Your task to perform on an android device: Clear the cart on walmart.com. Add "razer blade" to the cart on walmart.com, then select checkout. Image 0: 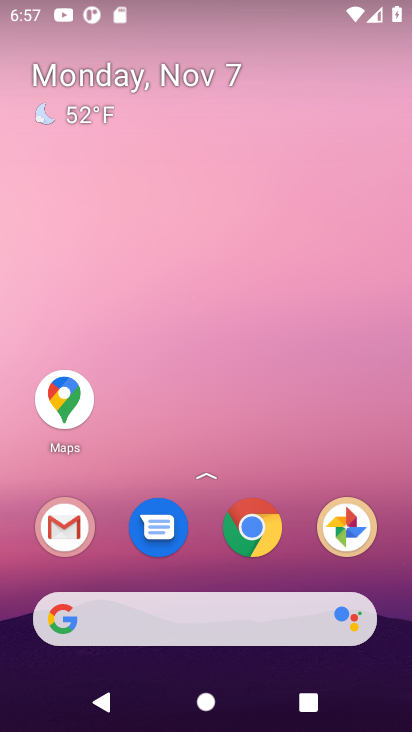
Step 0: click (251, 511)
Your task to perform on an android device: Clear the cart on walmart.com. Add "razer blade" to the cart on walmart.com, then select checkout. Image 1: 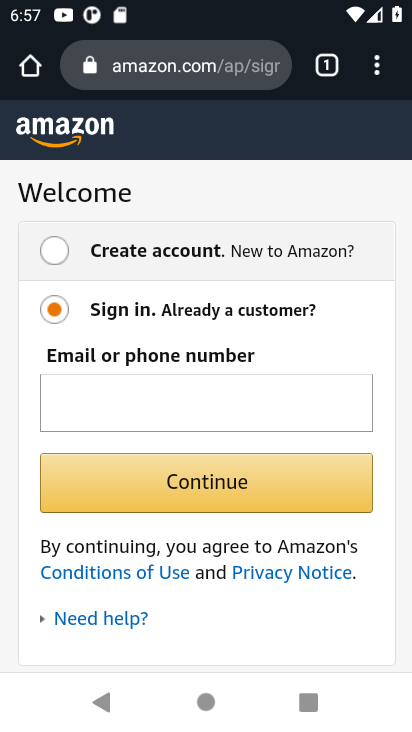
Step 1: click (248, 42)
Your task to perform on an android device: Clear the cart on walmart.com. Add "razer blade" to the cart on walmart.com, then select checkout. Image 2: 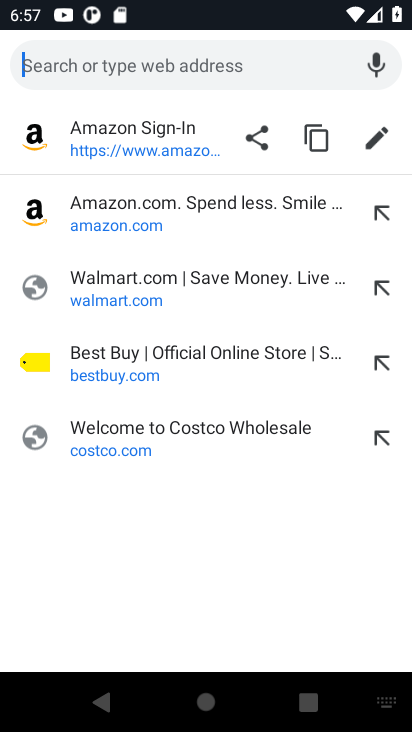
Step 2: type "walmart.com"
Your task to perform on an android device: Clear the cart on walmart.com. Add "razer blade" to the cart on walmart.com, then select checkout. Image 3: 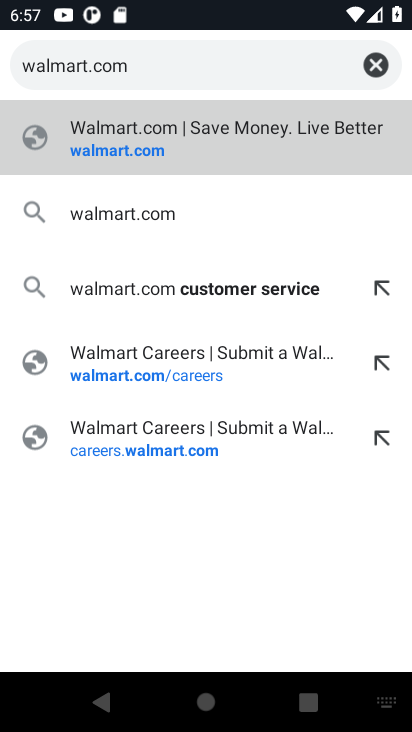
Step 3: click (138, 164)
Your task to perform on an android device: Clear the cart on walmart.com. Add "razer blade" to the cart on walmart.com, then select checkout. Image 4: 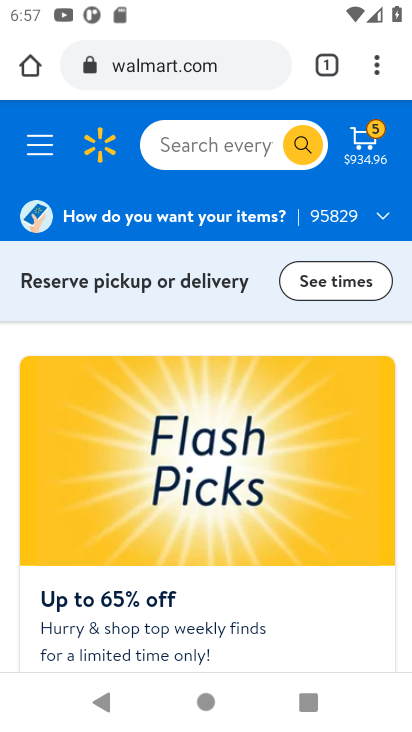
Step 4: click (218, 151)
Your task to perform on an android device: Clear the cart on walmart.com. Add "razer blade" to the cart on walmart.com, then select checkout. Image 5: 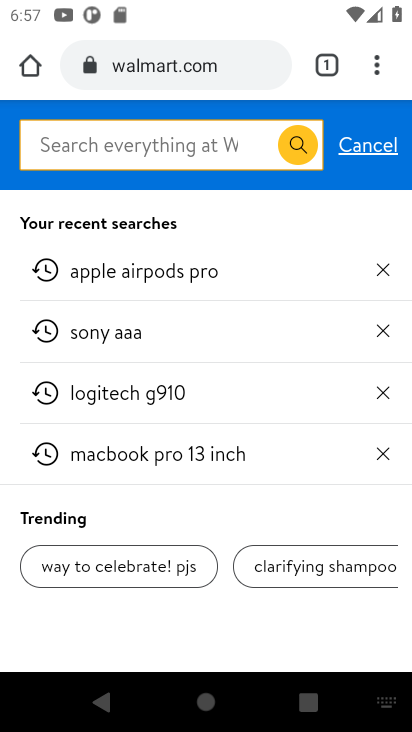
Step 5: type "razer blade"
Your task to perform on an android device: Clear the cart on walmart.com. Add "razer blade" to the cart on walmart.com, then select checkout. Image 6: 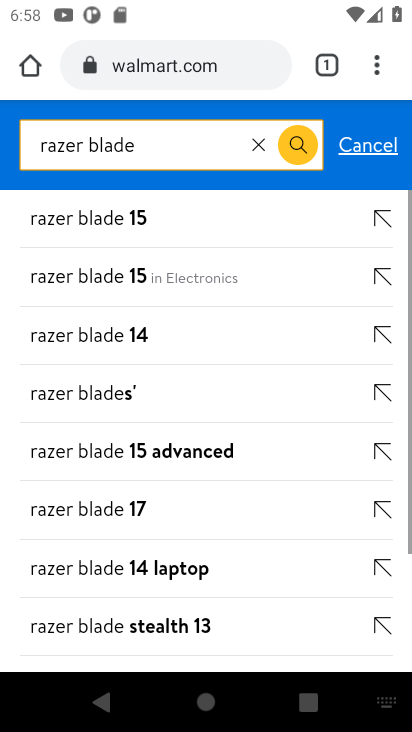
Step 6: press enter
Your task to perform on an android device: Clear the cart on walmart.com. Add "razer blade" to the cart on walmart.com, then select checkout. Image 7: 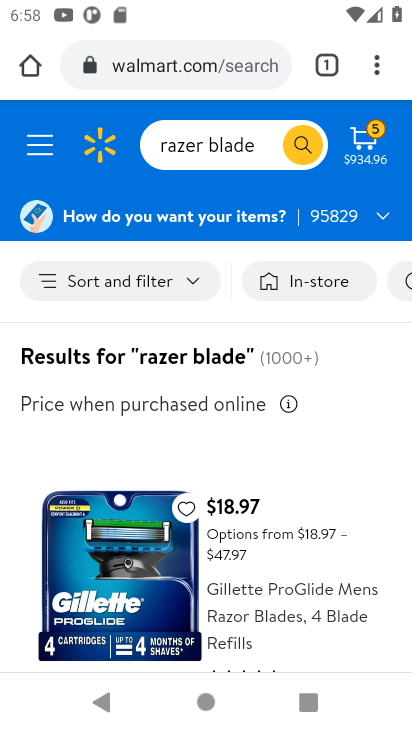
Step 7: drag from (224, 614) to (184, 326)
Your task to perform on an android device: Clear the cart on walmart.com. Add "razer blade" to the cart on walmart.com, then select checkout. Image 8: 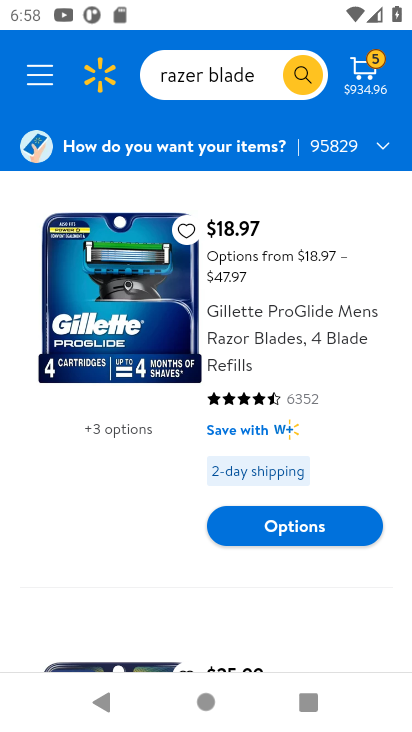
Step 8: click (271, 533)
Your task to perform on an android device: Clear the cart on walmart.com. Add "razer blade" to the cart on walmart.com, then select checkout. Image 9: 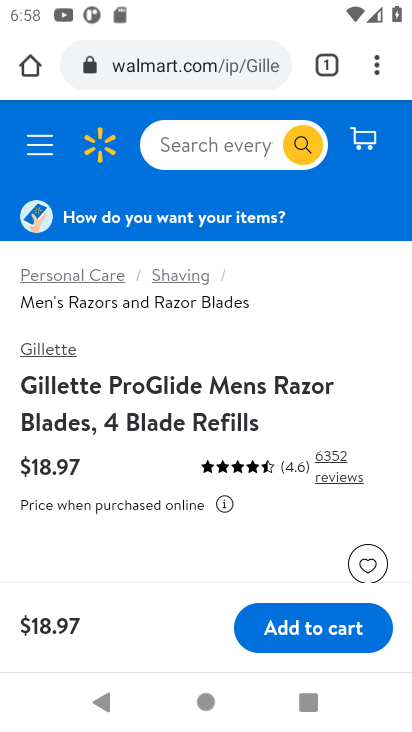
Step 9: click (295, 627)
Your task to perform on an android device: Clear the cart on walmart.com. Add "razer blade" to the cart on walmart.com, then select checkout. Image 10: 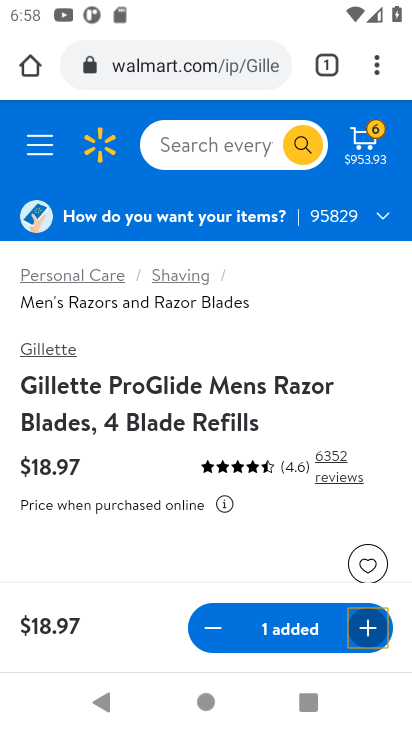
Step 10: click (375, 135)
Your task to perform on an android device: Clear the cart on walmart.com. Add "razer blade" to the cart on walmart.com, then select checkout. Image 11: 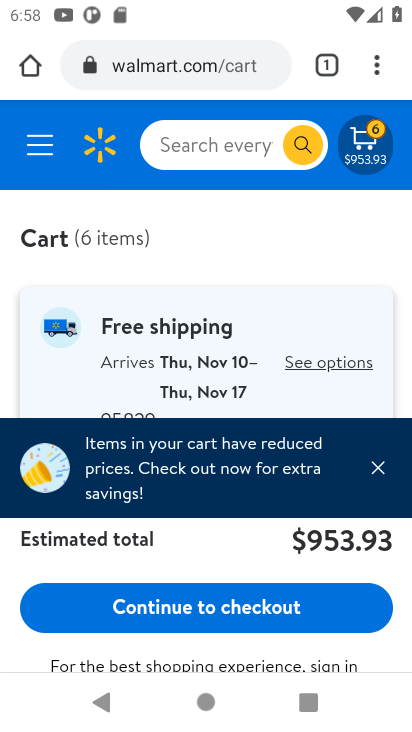
Step 11: click (240, 618)
Your task to perform on an android device: Clear the cart on walmart.com. Add "razer blade" to the cart on walmart.com, then select checkout. Image 12: 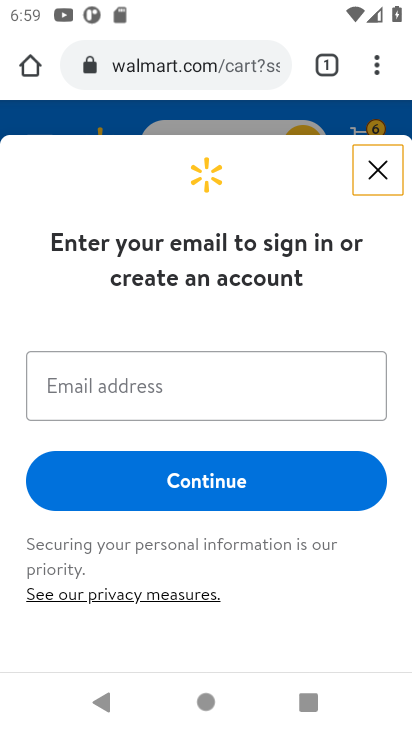
Step 12: task complete